Your task to perform on an android device: How do I get to the nearest T-Mobile Store? Image 0: 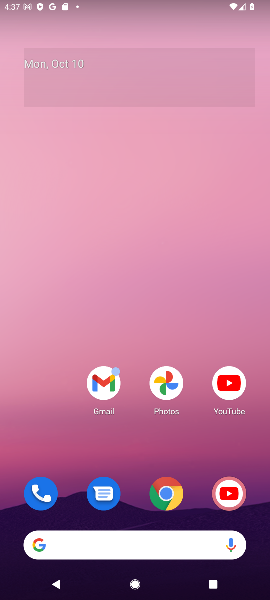
Step 0: click (132, 550)
Your task to perform on an android device: How do I get to the nearest T-Mobile Store? Image 1: 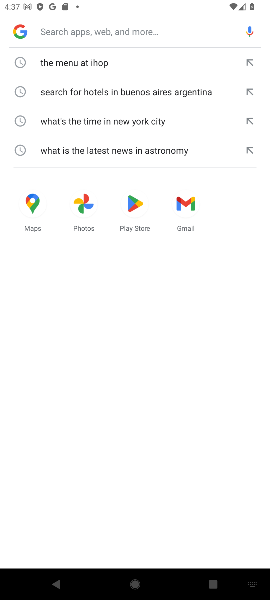
Step 1: type "How do I get to the nearest T-Mobile Store?"
Your task to perform on an android device: How do I get to the nearest T-Mobile Store? Image 2: 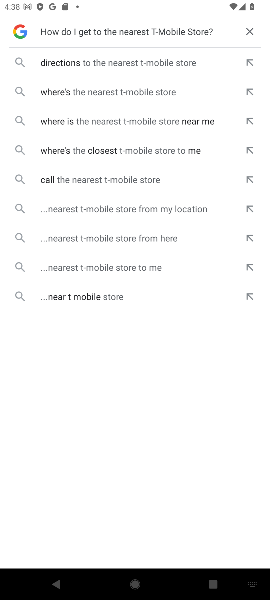
Step 2: click (152, 70)
Your task to perform on an android device: How do I get to the nearest T-Mobile Store? Image 3: 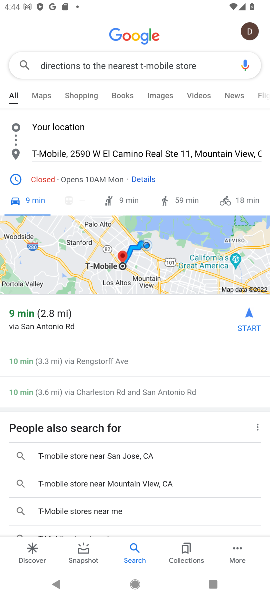
Step 3: task complete